Your task to perform on an android device: stop showing notifications on the lock screen Image 0: 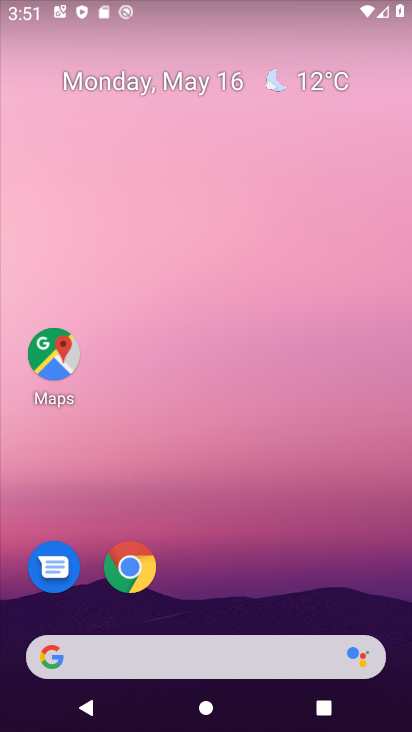
Step 0: drag from (267, 546) to (192, 27)
Your task to perform on an android device: stop showing notifications on the lock screen Image 1: 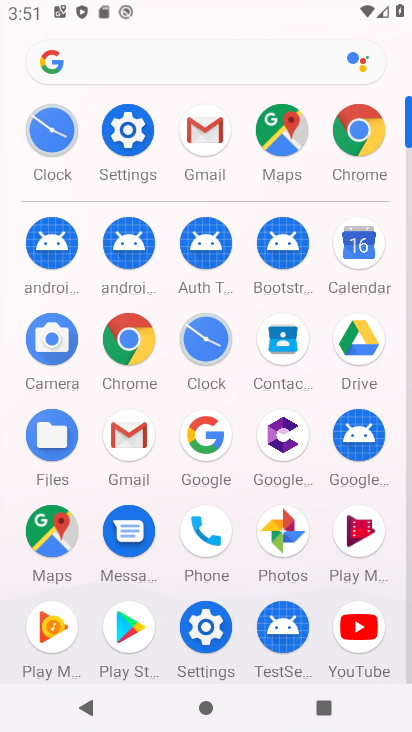
Step 1: click (202, 626)
Your task to perform on an android device: stop showing notifications on the lock screen Image 2: 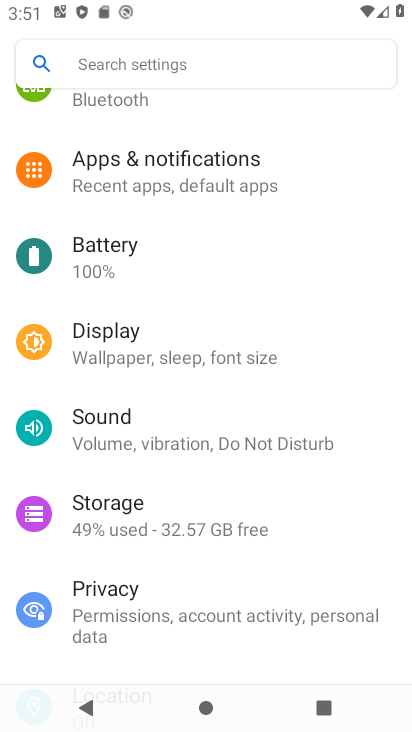
Step 2: click (222, 170)
Your task to perform on an android device: stop showing notifications on the lock screen Image 3: 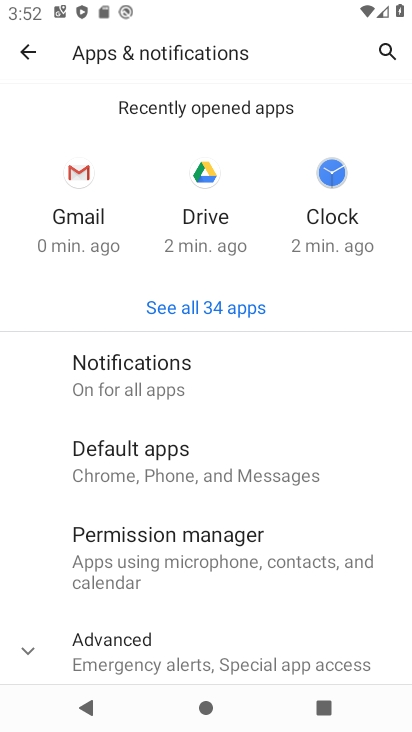
Step 3: click (206, 364)
Your task to perform on an android device: stop showing notifications on the lock screen Image 4: 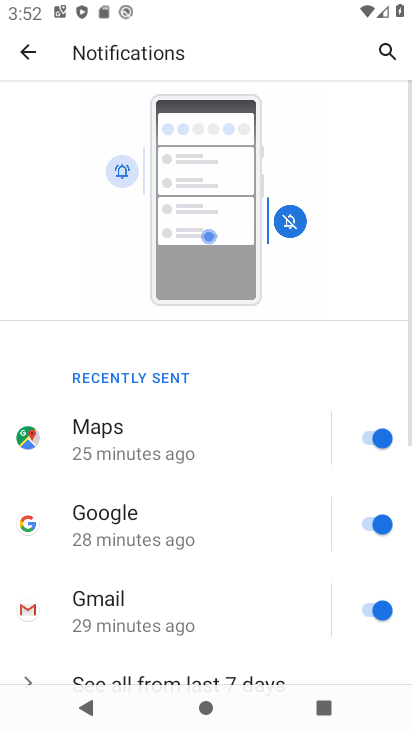
Step 4: drag from (191, 566) to (203, 156)
Your task to perform on an android device: stop showing notifications on the lock screen Image 5: 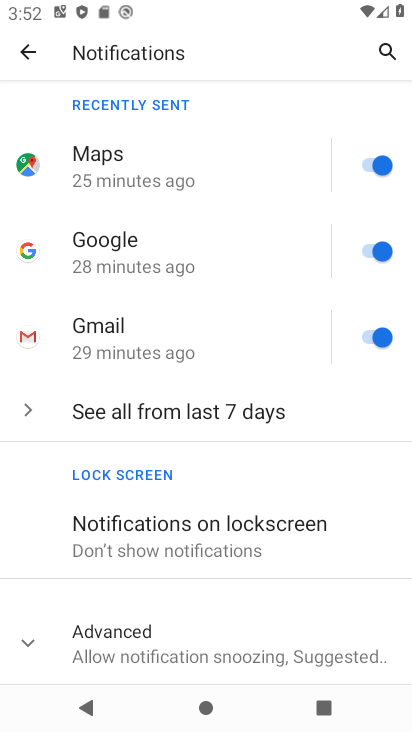
Step 5: click (191, 527)
Your task to perform on an android device: stop showing notifications on the lock screen Image 6: 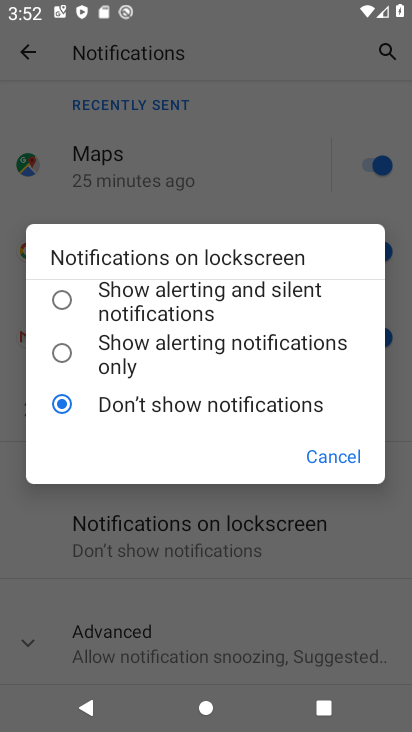
Step 6: click (195, 396)
Your task to perform on an android device: stop showing notifications on the lock screen Image 7: 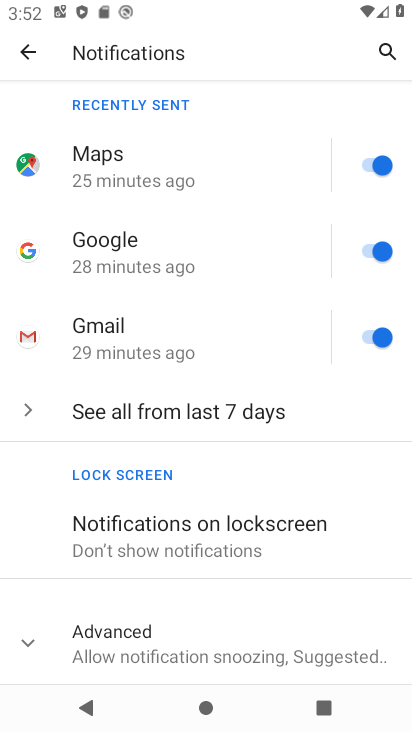
Step 7: task complete